Your task to perform on an android device: turn off improve location accuracy Image 0: 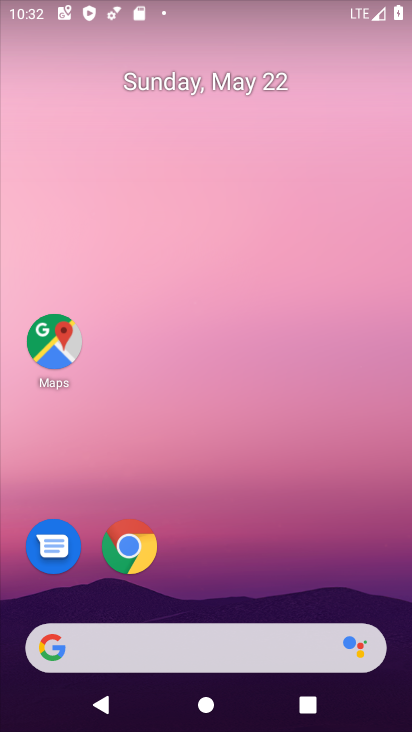
Step 0: drag from (189, 606) to (245, 4)
Your task to perform on an android device: turn off improve location accuracy Image 1: 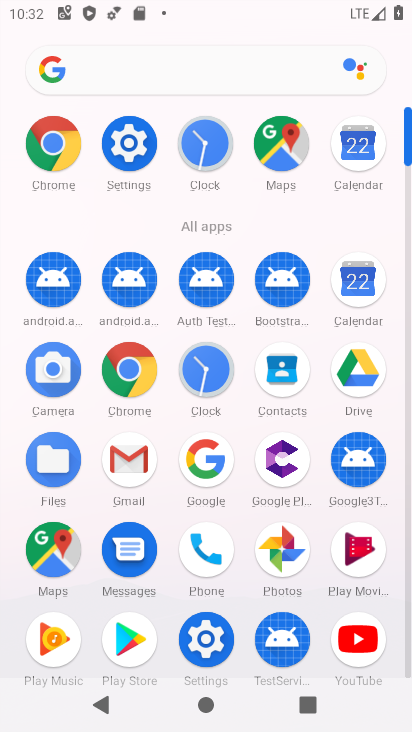
Step 1: click (217, 649)
Your task to perform on an android device: turn off improve location accuracy Image 2: 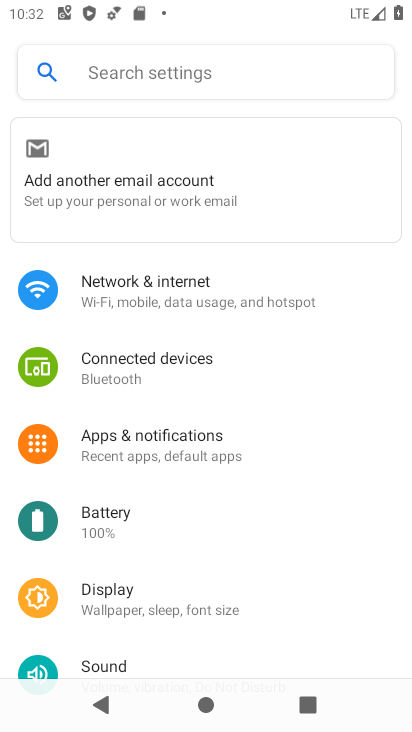
Step 2: drag from (147, 591) to (151, 313)
Your task to perform on an android device: turn off improve location accuracy Image 3: 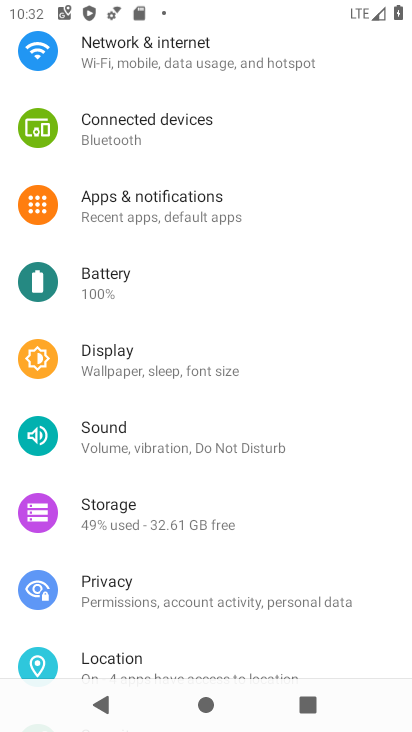
Step 3: drag from (116, 641) to (161, 397)
Your task to perform on an android device: turn off improve location accuracy Image 4: 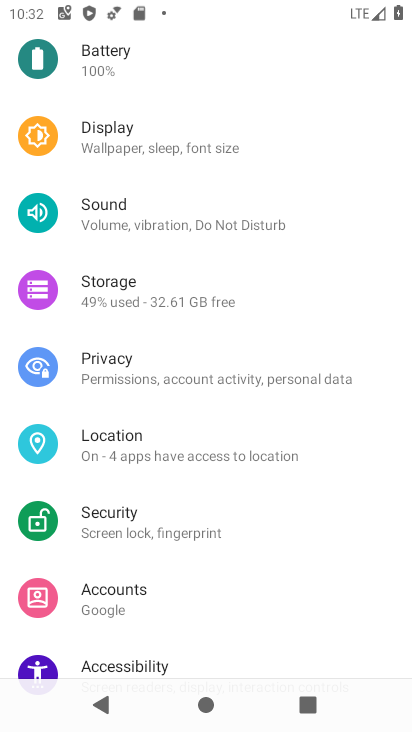
Step 4: click (154, 455)
Your task to perform on an android device: turn off improve location accuracy Image 5: 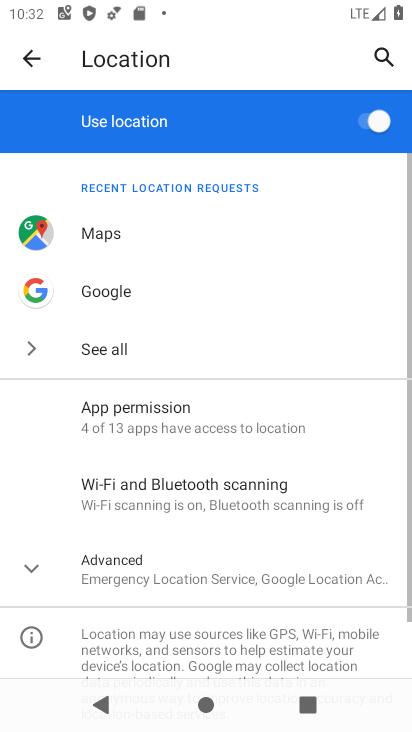
Step 5: click (160, 583)
Your task to perform on an android device: turn off improve location accuracy Image 6: 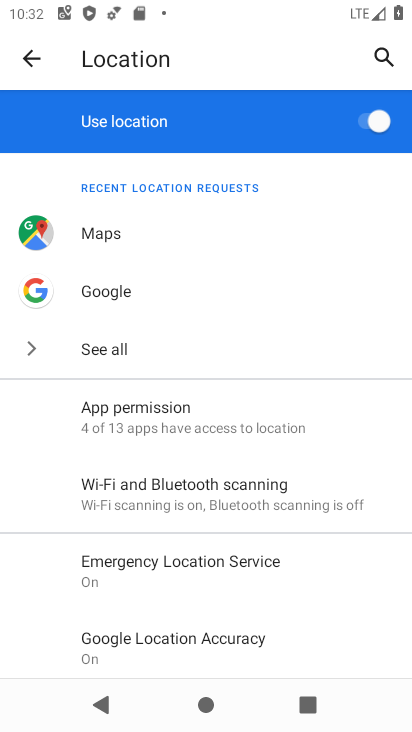
Step 6: drag from (167, 559) to (199, 319)
Your task to perform on an android device: turn off improve location accuracy Image 7: 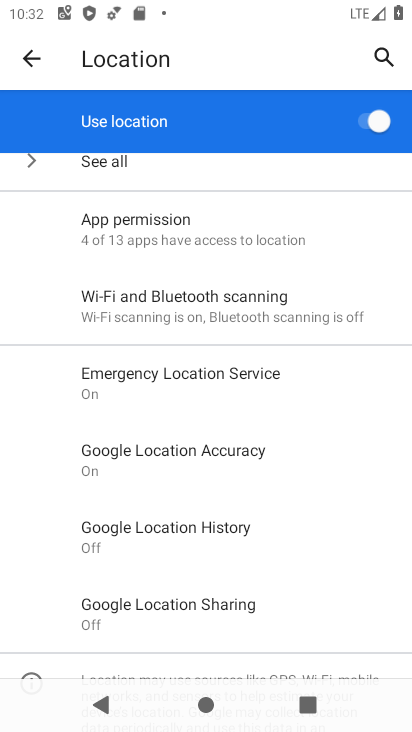
Step 7: click (207, 457)
Your task to perform on an android device: turn off improve location accuracy Image 8: 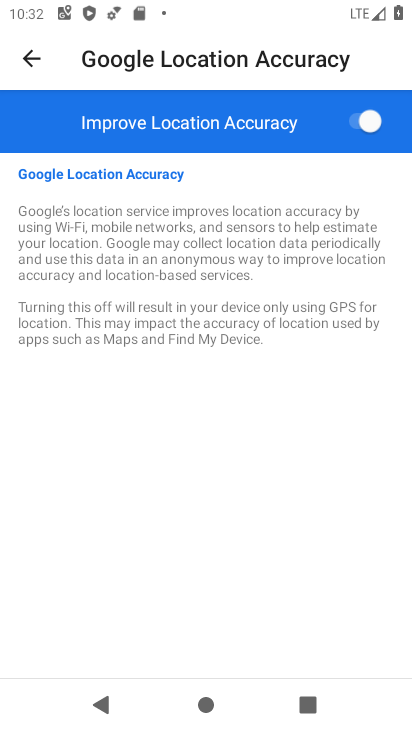
Step 8: click (353, 124)
Your task to perform on an android device: turn off improve location accuracy Image 9: 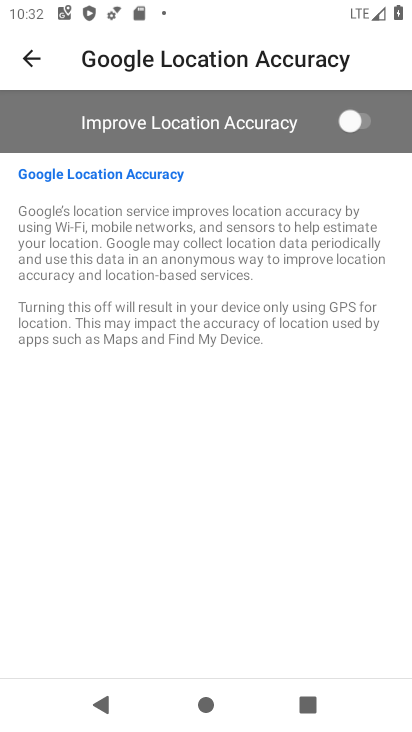
Step 9: task complete